Your task to perform on an android device: What's the weather today? Image 0: 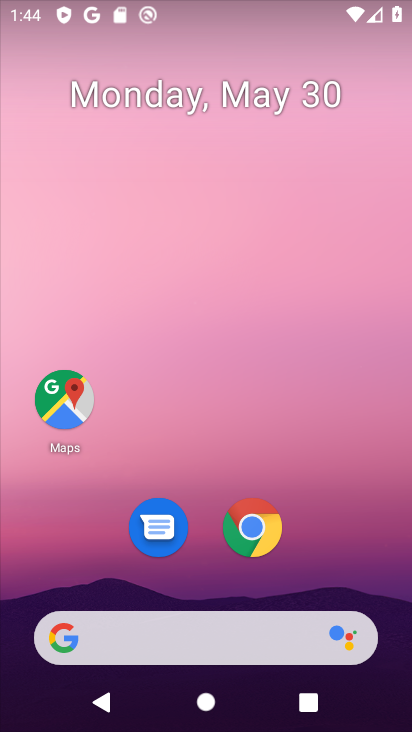
Step 0: click (158, 625)
Your task to perform on an android device: What's the weather today? Image 1: 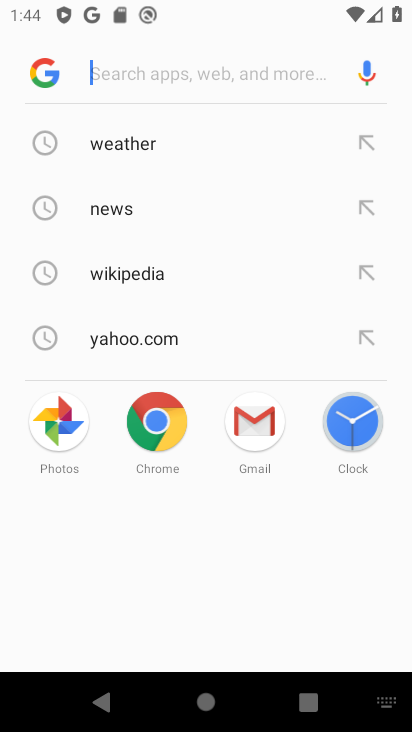
Step 1: click (92, 152)
Your task to perform on an android device: What's the weather today? Image 2: 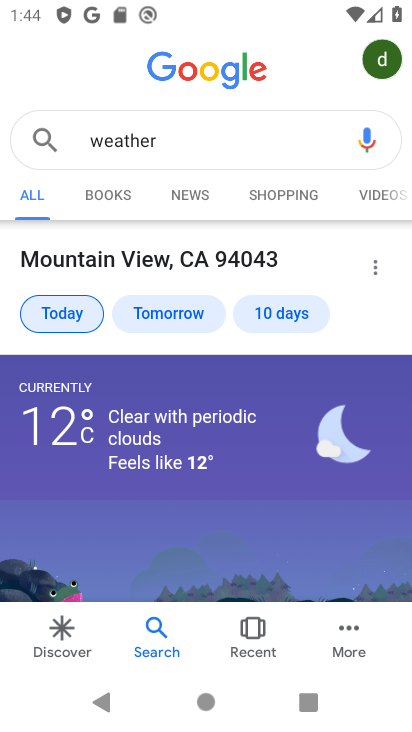
Step 2: task complete